Your task to perform on an android device: toggle pop-ups in chrome Image 0: 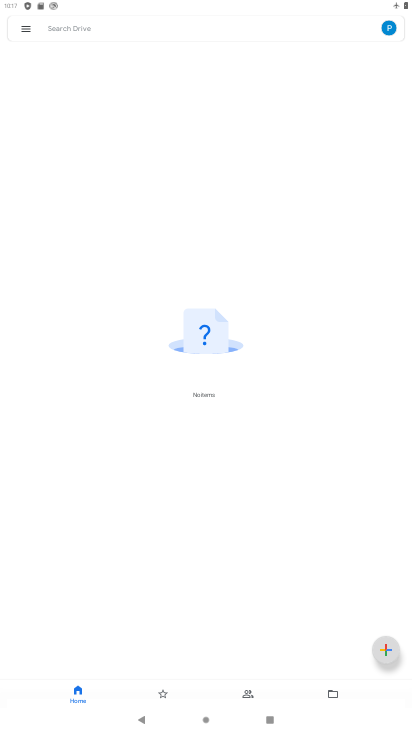
Step 0: press back button
Your task to perform on an android device: toggle pop-ups in chrome Image 1: 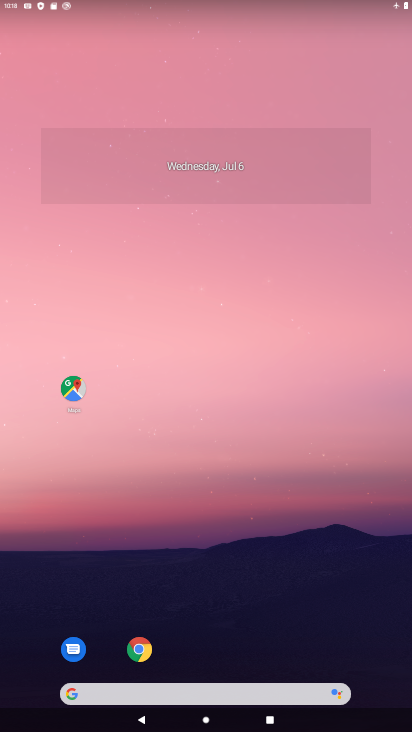
Step 1: click (143, 648)
Your task to perform on an android device: toggle pop-ups in chrome Image 2: 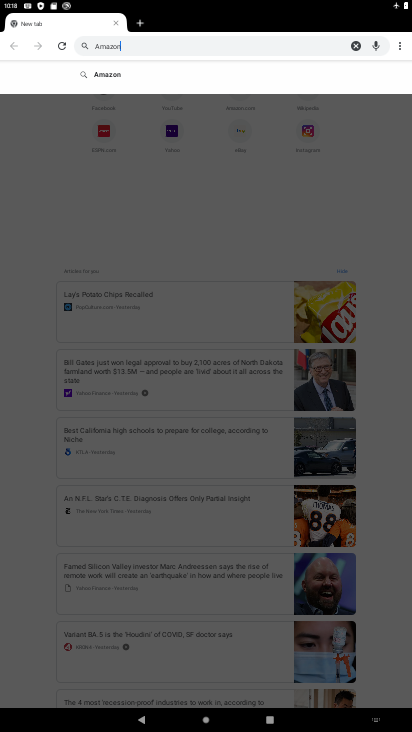
Step 2: press back button
Your task to perform on an android device: toggle pop-ups in chrome Image 3: 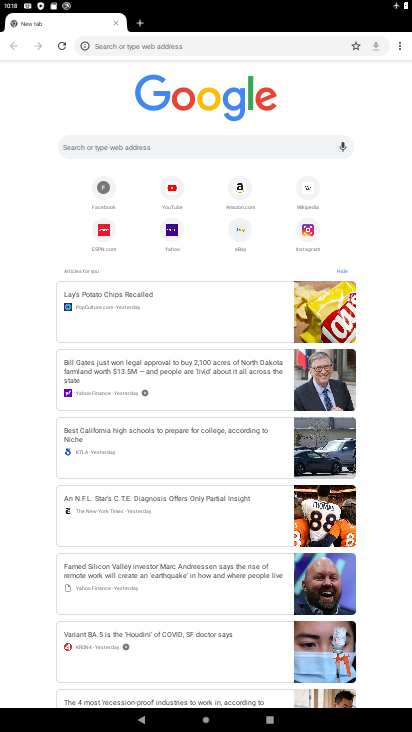
Step 3: click (396, 39)
Your task to perform on an android device: toggle pop-ups in chrome Image 4: 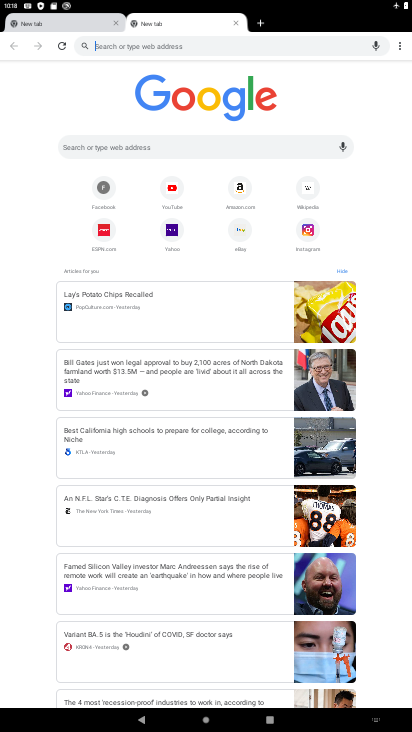
Step 4: click (402, 45)
Your task to perform on an android device: toggle pop-ups in chrome Image 5: 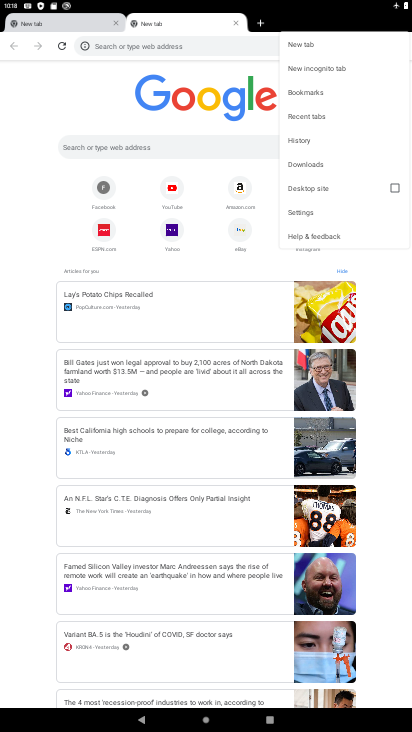
Step 5: click (303, 205)
Your task to perform on an android device: toggle pop-ups in chrome Image 6: 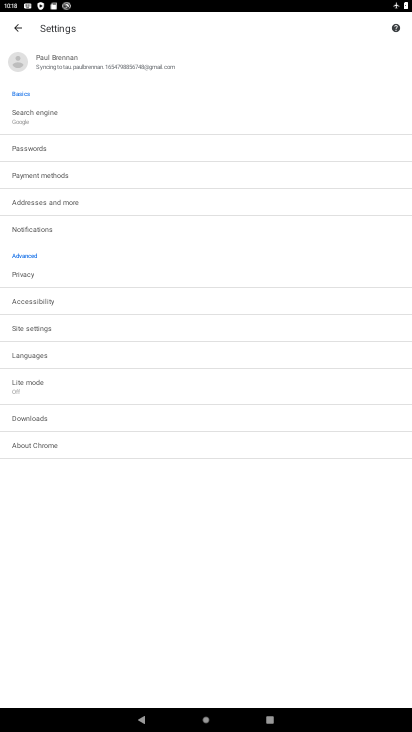
Step 6: click (53, 328)
Your task to perform on an android device: toggle pop-ups in chrome Image 7: 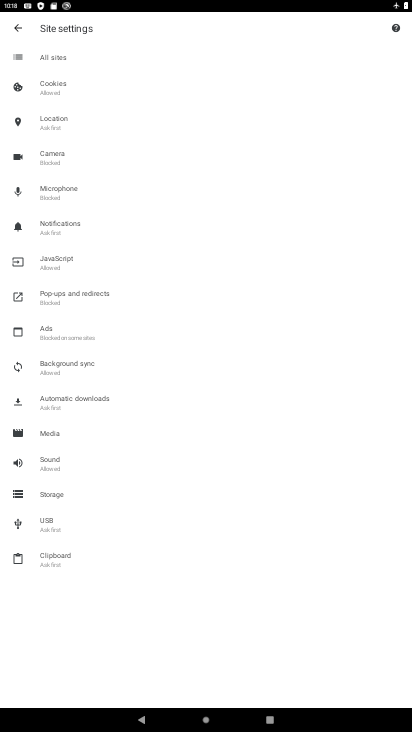
Step 7: click (61, 297)
Your task to perform on an android device: toggle pop-ups in chrome Image 8: 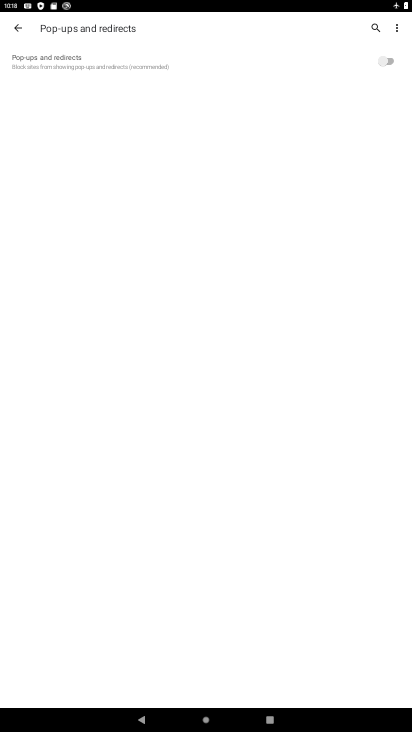
Step 8: click (383, 61)
Your task to perform on an android device: toggle pop-ups in chrome Image 9: 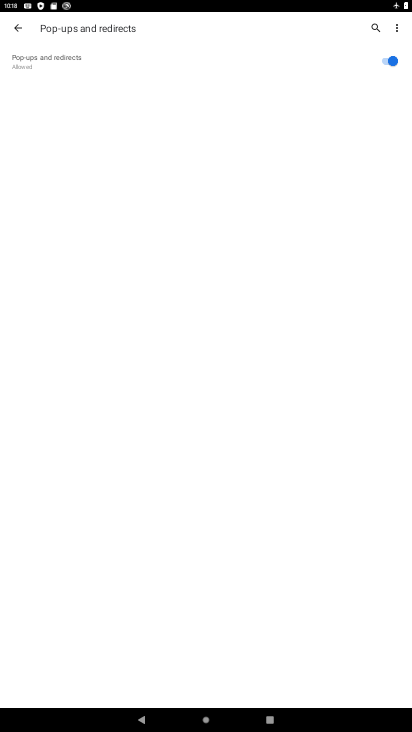
Step 9: task complete